Your task to perform on an android device: clear all cookies in the chrome app Image 0: 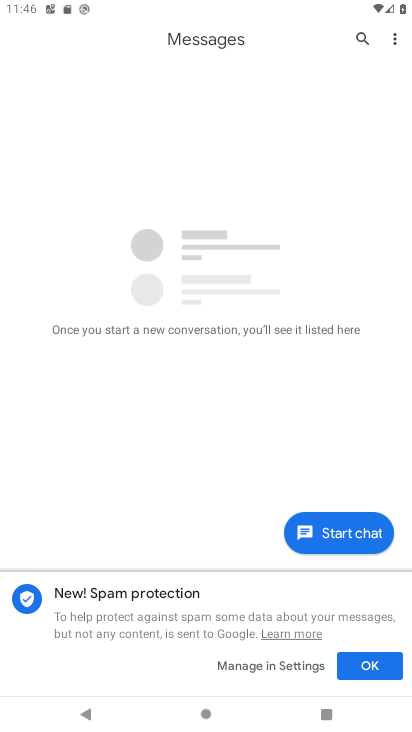
Step 0: press home button
Your task to perform on an android device: clear all cookies in the chrome app Image 1: 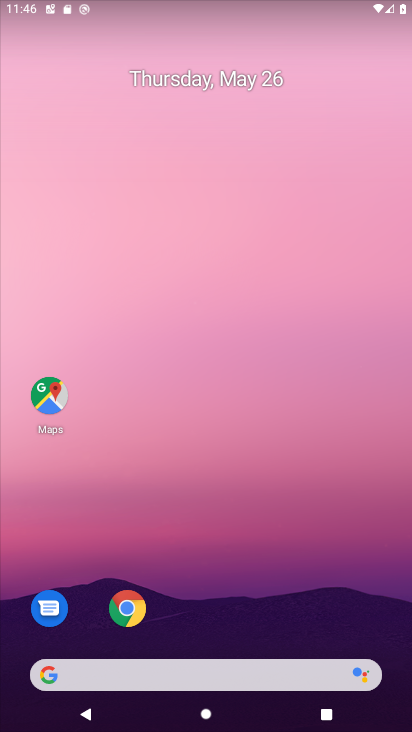
Step 1: drag from (393, 631) to (363, 270)
Your task to perform on an android device: clear all cookies in the chrome app Image 2: 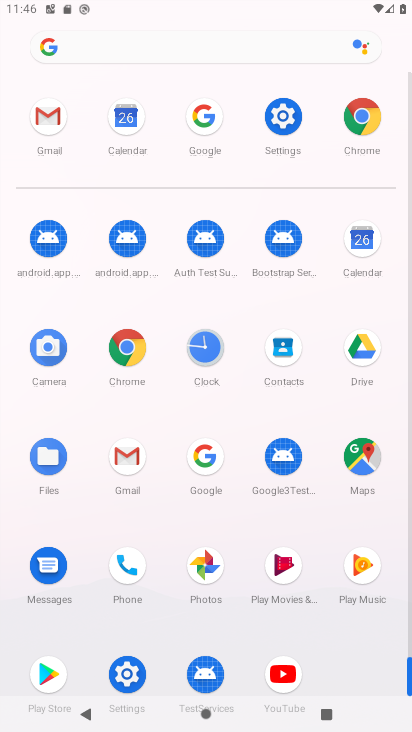
Step 2: click (121, 343)
Your task to perform on an android device: clear all cookies in the chrome app Image 3: 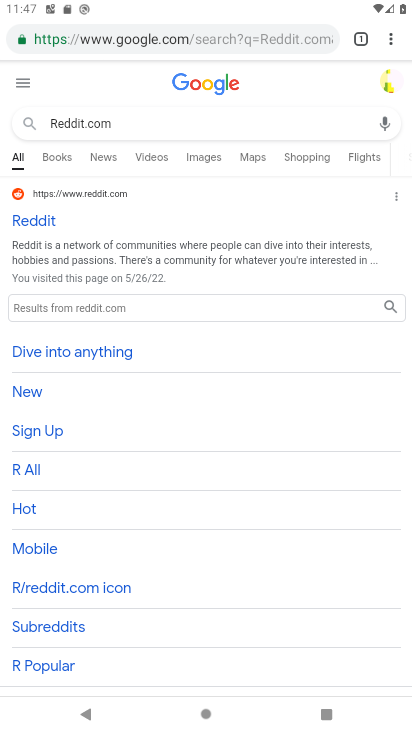
Step 3: click (389, 37)
Your task to perform on an android device: clear all cookies in the chrome app Image 4: 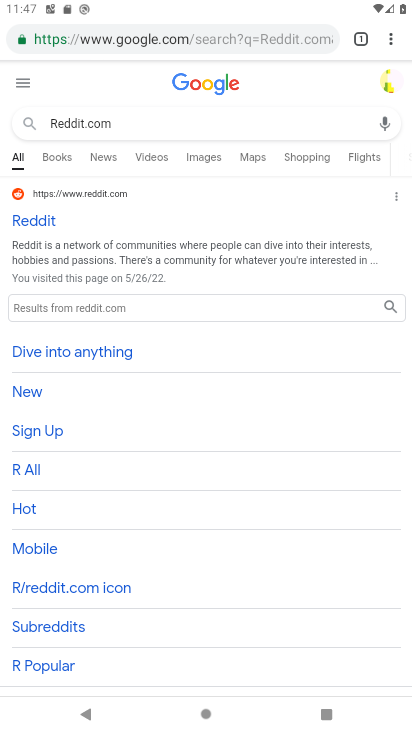
Step 4: click (391, 39)
Your task to perform on an android device: clear all cookies in the chrome app Image 5: 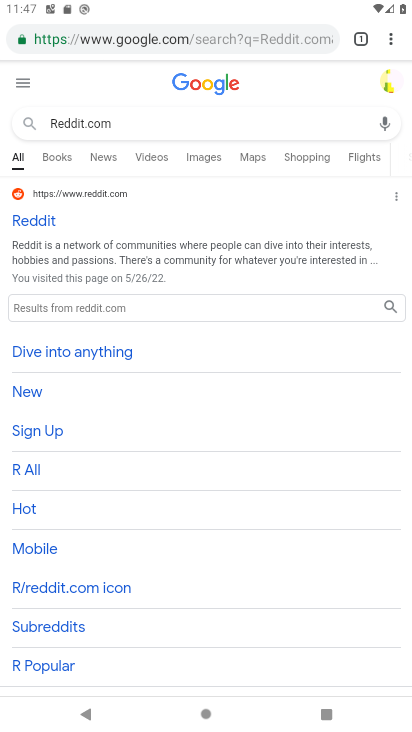
Step 5: click (387, 38)
Your task to perform on an android device: clear all cookies in the chrome app Image 6: 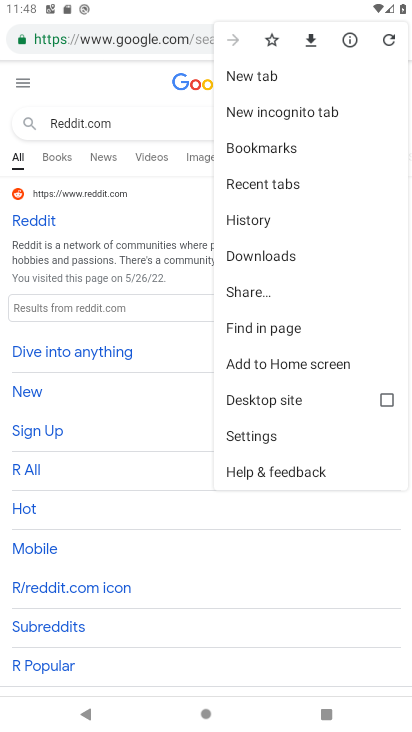
Step 6: click (242, 215)
Your task to perform on an android device: clear all cookies in the chrome app Image 7: 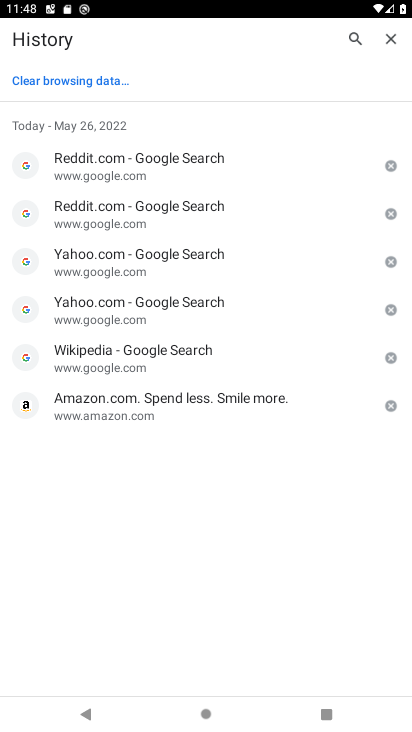
Step 7: click (90, 80)
Your task to perform on an android device: clear all cookies in the chrome app Image 8: 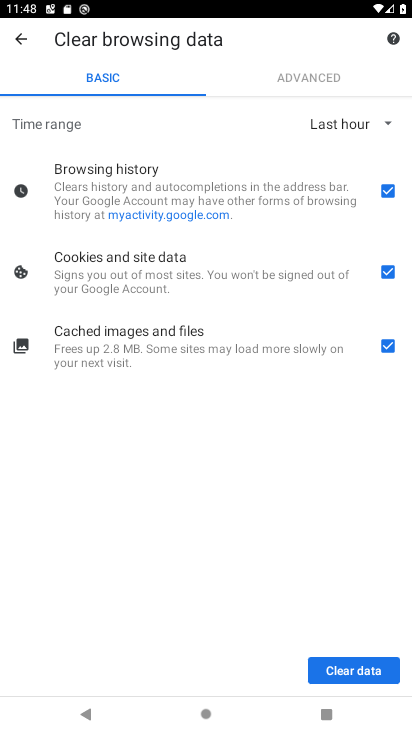
Step 8: click (356, 670)
Your task to perform on an android device: clear all cookies in the chrome app Image 9: 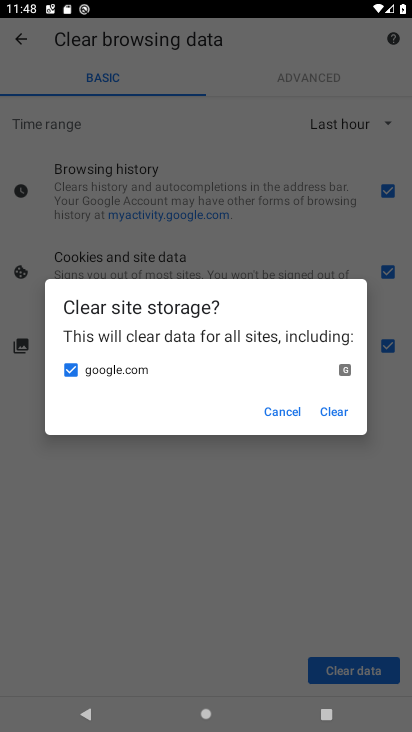
Step 9: click (339, 409)
Your task to perform on an android device: clear all cookies in the chrome app Image 10: 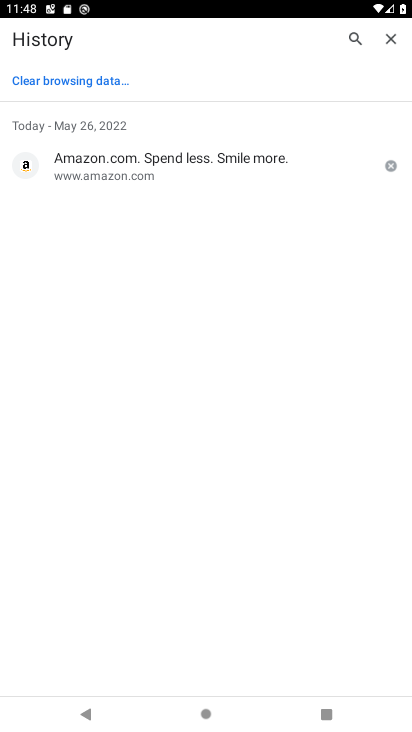
Step 10: click (387, 165)
Your task to perform on an android device: clear all cookies in the chrome app Image 11: 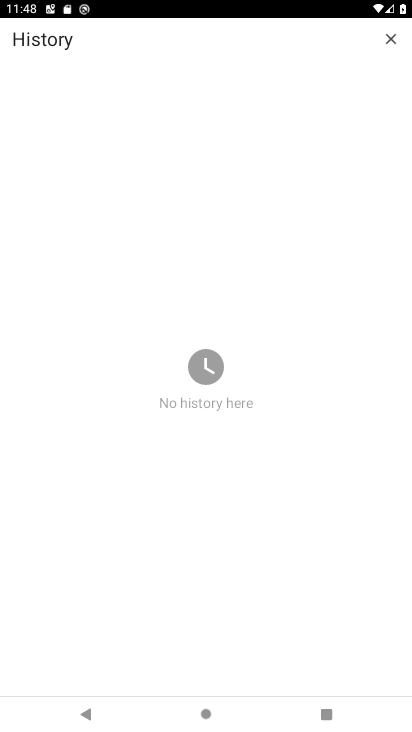
Step 11: task complete